Your task to perform on an android device: change timer sound Image 0: 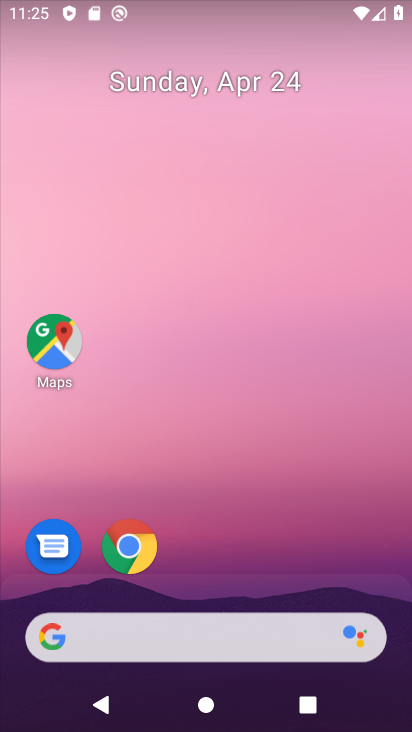
Step 0: drag from (233, 286) to (241, 143)
Your task to perform on an android device: change timer sound Image 1: 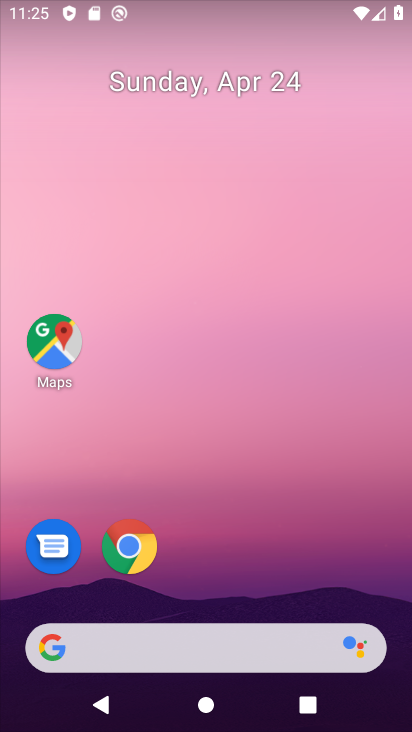
Step 1: drag from (202, 581) to (235, 167)
Your task to perform on an android device: change timer sound Image 2: 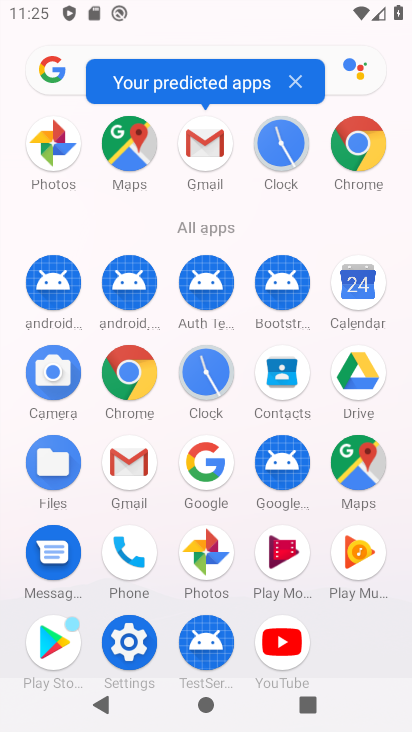
Step 2: click (272, 153)
Your task to perform on an android device: change timer sound Image 3: 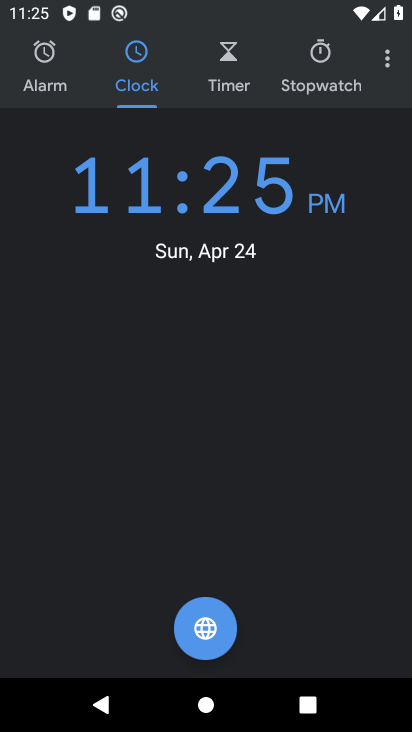
Step 3: click (382, 62)
Your task to perform on an android device: change timer sound Image 4: 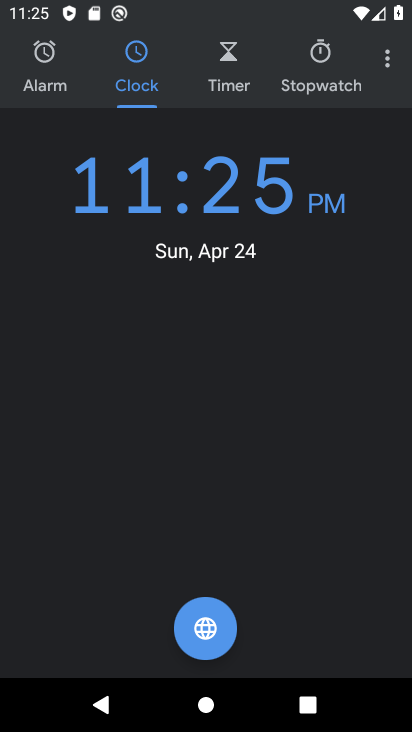
Step 4: click (385, 59)
Your task to perform on an android device: change timer sound Image 5: 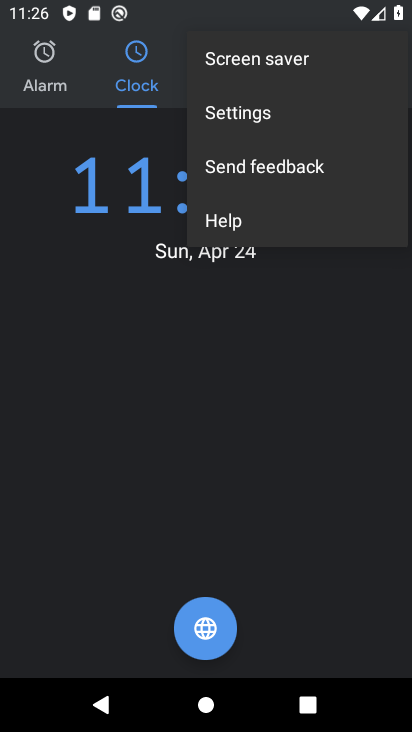
Step 5: click (270, 118)
Your task to perform on an android device: change timer sound Image 6: 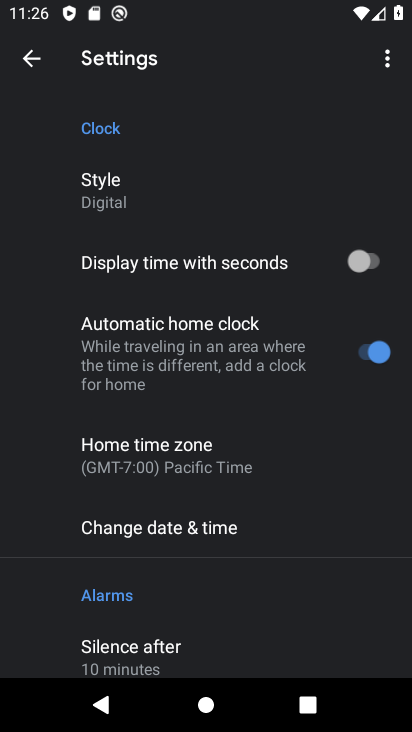
Step 6: drag from (229, 575) to (251, 281)
Your task to perform on an android device: change timer sound Image 7: 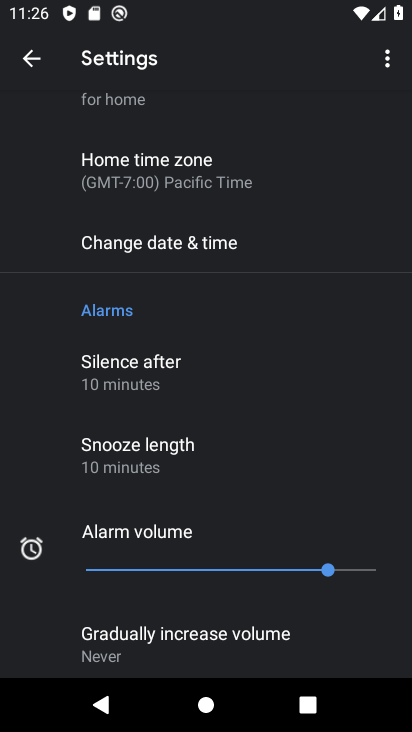
Step 7: drag from (213, 546) to (237, 247)
Your task to perform on an android device: change timer sound Image 8: 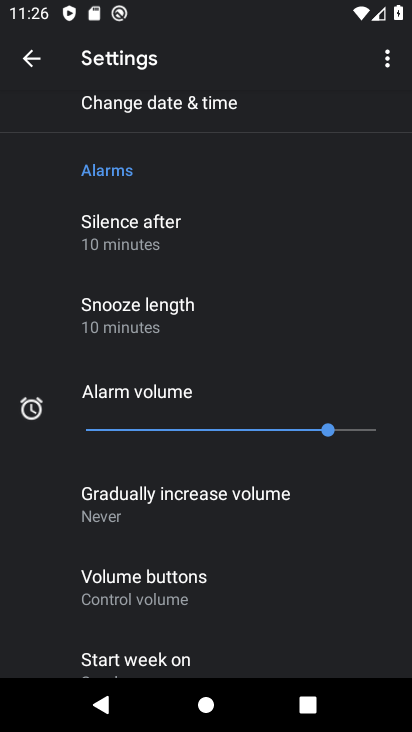
Step 8: drag from (239, 551) to (244, 235)
Your task to perform on an android device: change timer sound Image 9: 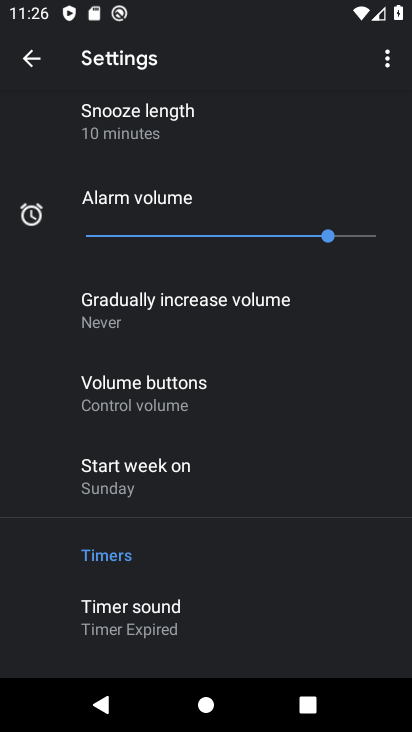
Step 9: click (182, 612)
Your task to perform on an android device: change timer sound Image 10: 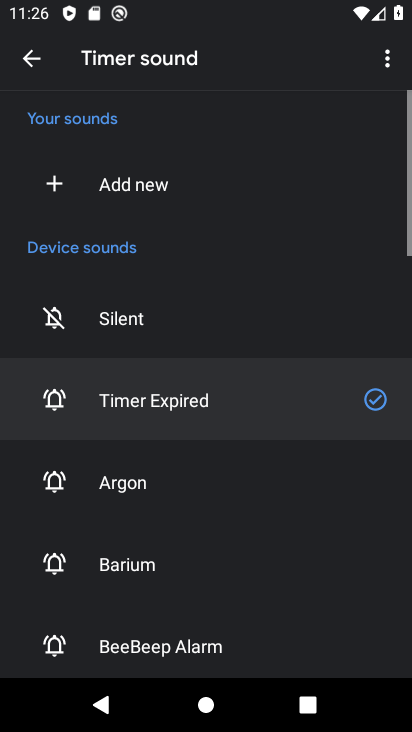
Step 10: click (155, 551)
Your task to perform on an android device: change timer sound Image 11: 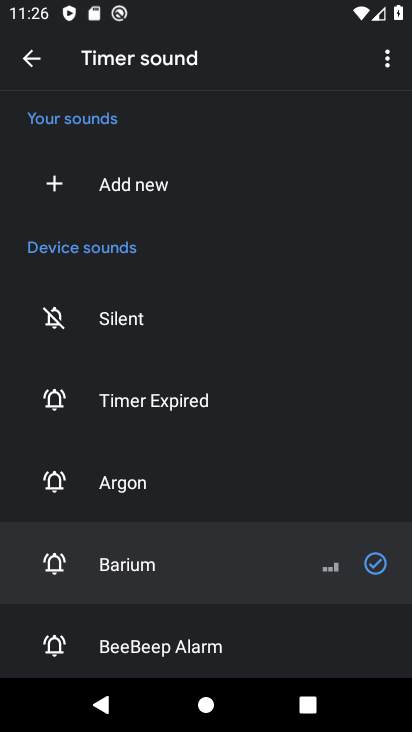
Step 11: task complete